Your task to perform on an android device: open sync settings in chrome Image 0: 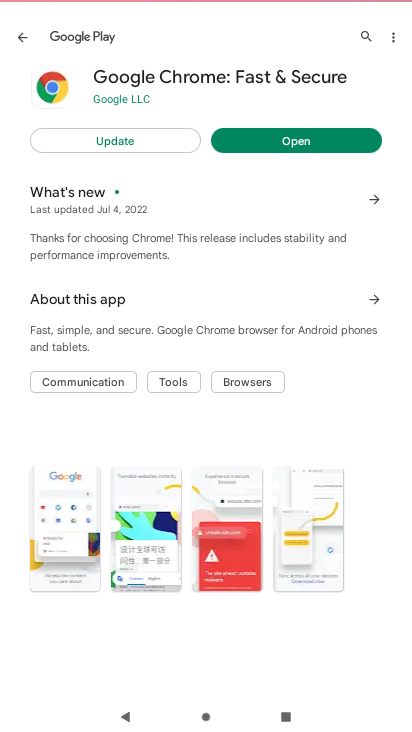
Step 0: click (278, 62)
Your task to perform on an android device: open sync settings in chrome Image 1: 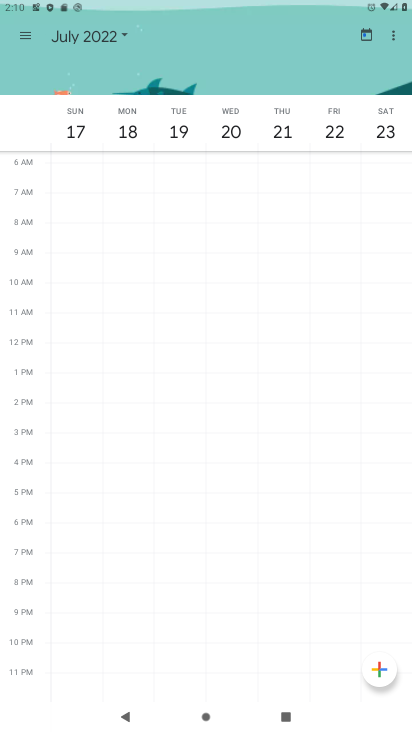
Step 1: press home button
Your task to perform on an android device: open sync settings in chrome Image 2: 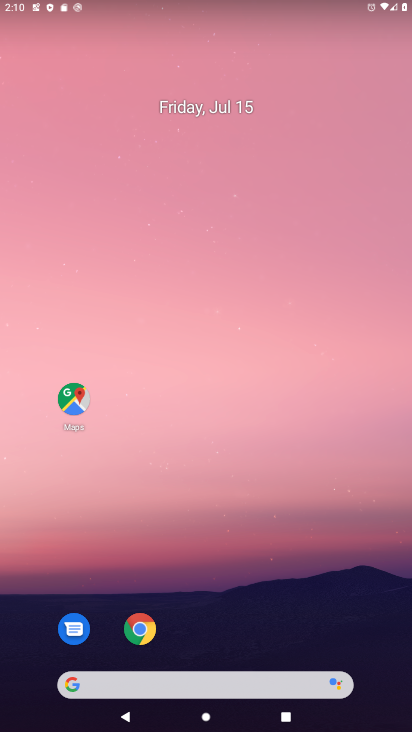
Step 2: drag from (231, 618) to (228, 77)
Your task to perform on an android device: open sync settings in chrome Image 3: 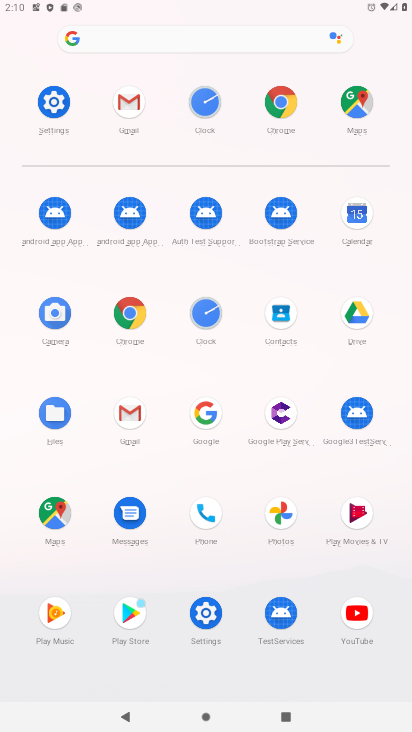
Step 3: click (133, 312)
Your task to perform on an android device: open sync settings in chrome Image 4: 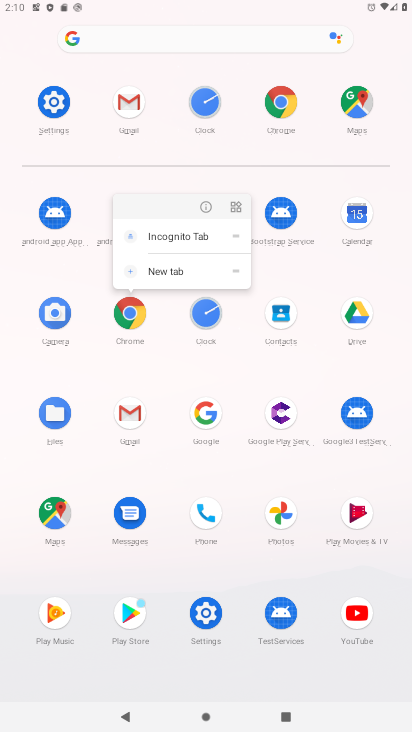
Step 4: click (125, 315)
Your task to perform on an android device: open sync settings in chrome Image 5: 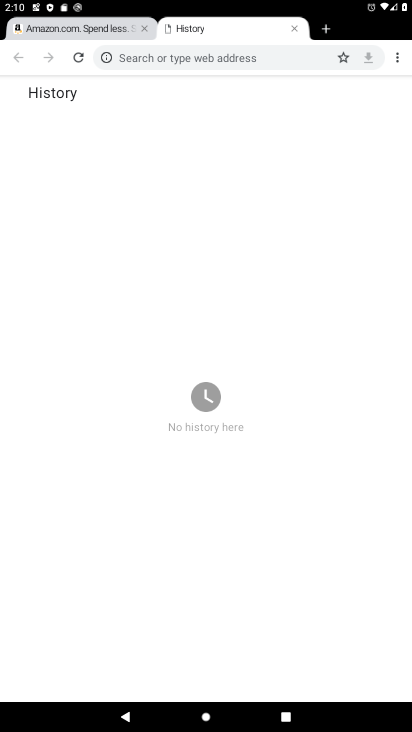
Step 5: click (399, 55)
Your task to perform on an android device: open sync settings in chrome Image 6: 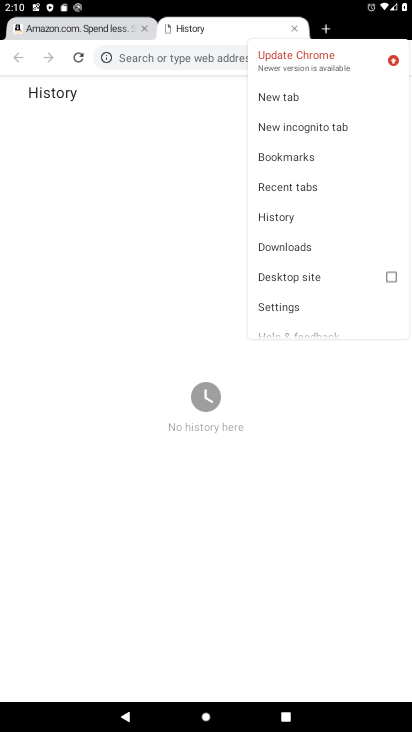
Step 6: click (291, 309)
Your task to perform on an android device: open sync settings in chrome Image 7: 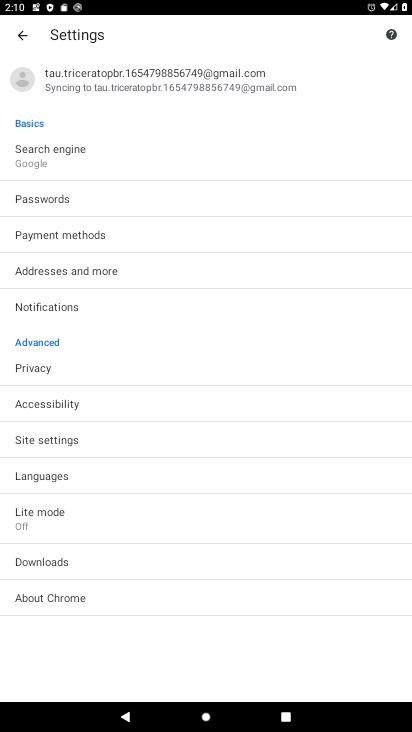
Step 7: click (136, 64)
Your task to perform on an android device: open sync settings in chrome Image 8: 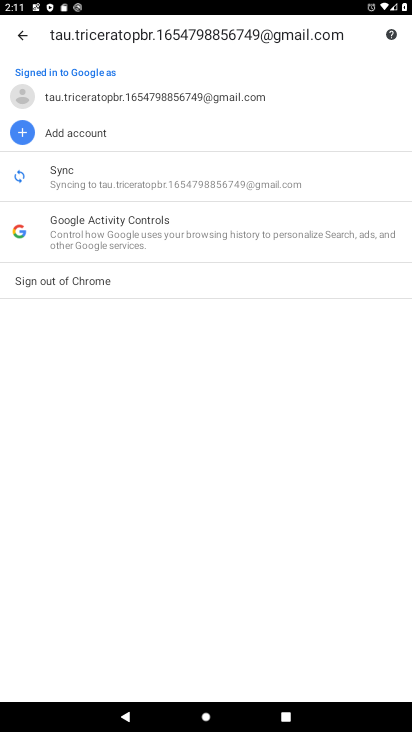
Step 8: click (87, 175)
Your task to perform on an android device: open sync settings in chrome Image 9: 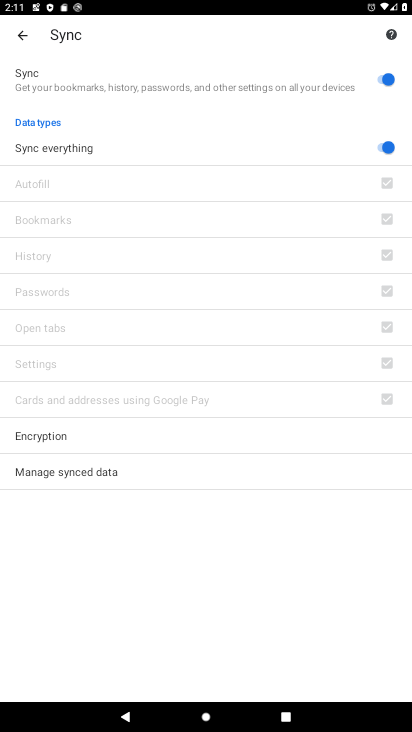
Step 9: task complete